Your task to perform on an android device: make emails show in primary in the gmail app Image 0: 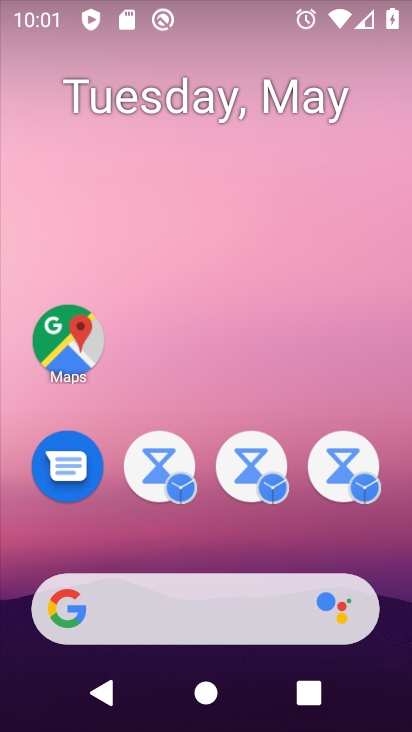
Step 0: drag from (389, 702) to (304, 105)
Your task to perform on an android device: make emails show in primary in the gmail app Image 1: 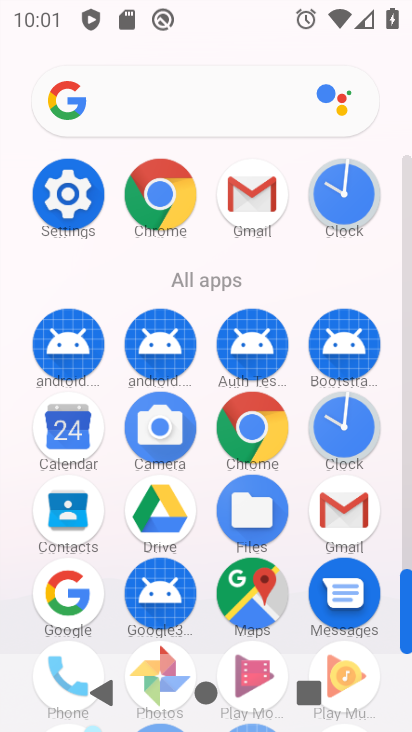
Step 1: click (235, 191)
Your task to perform on an android device: make emails show in primary in the gmail app Image 2: 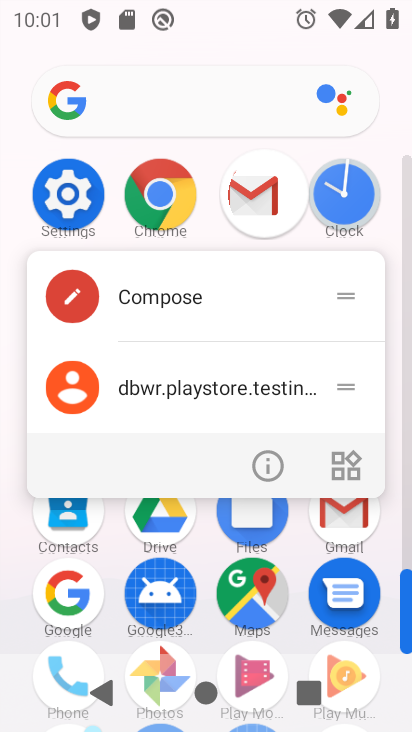
Step 2: click (248, 190)
Your task to perform on an android device: make emails show in primary in the gmail app Image 3: 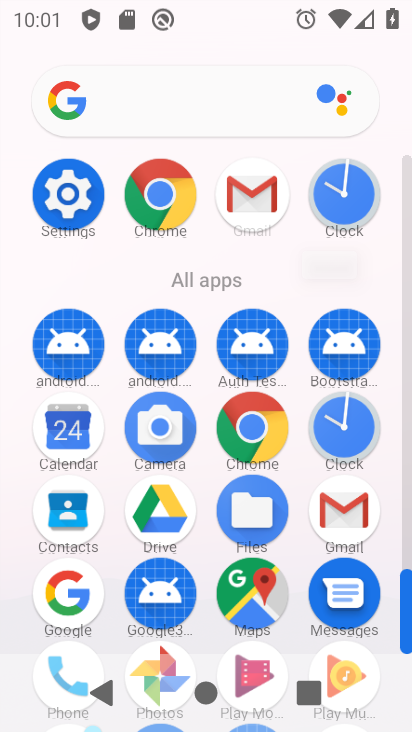
Step 3: click (252, 188)
Your task to perform on an android device: make emails show in primary in the gmail app Image 4: 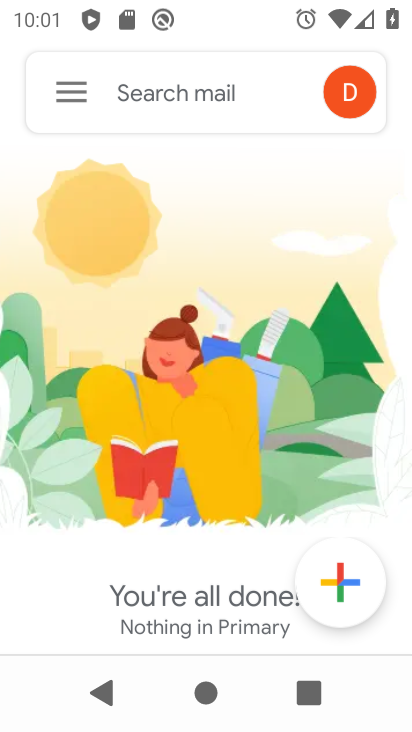
Step 4: click (252, 188)
Your task to perform on an android device: make emails show in primary in the gmail app Image 5: 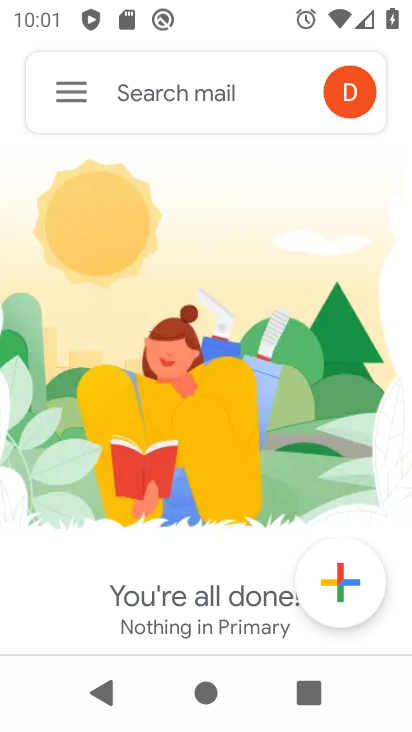
Step 5: click (252, 188)
Your task to perform on an android device: make emails show in primary in the gmail app Image 6: 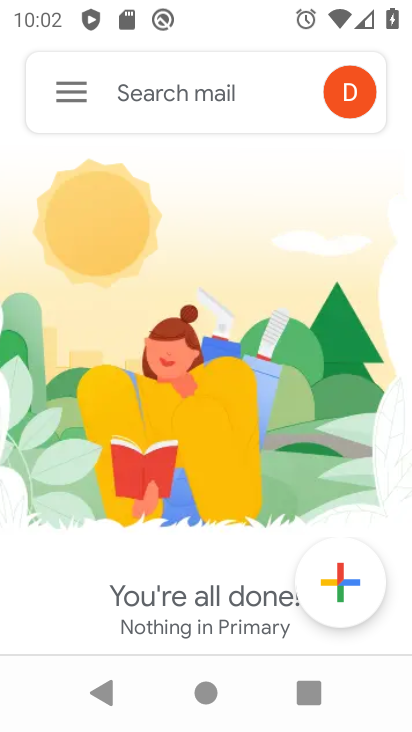
Step 6: click (61, 98)
Your task to perform on an android device: make emails show in primary in the gmail app Image 7: 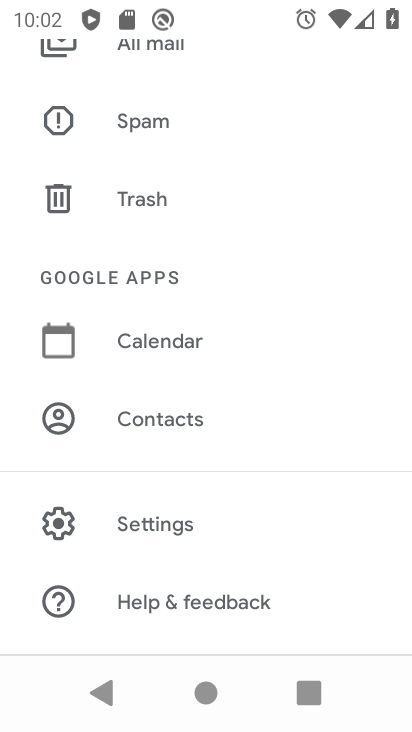
Step 7: click (162, 519)
Your task to perform on an android device: make emails show in primary in the gmail app Image 8: 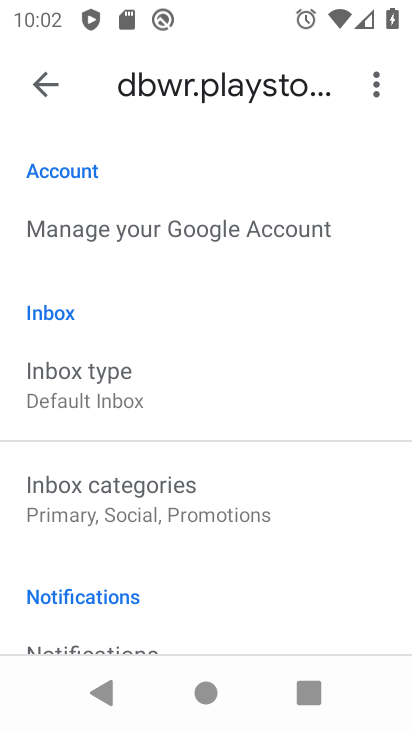
Step 8: click (108, 508)
Your task to perform on an android device: make emails show in primary in the gmail app Image 9: 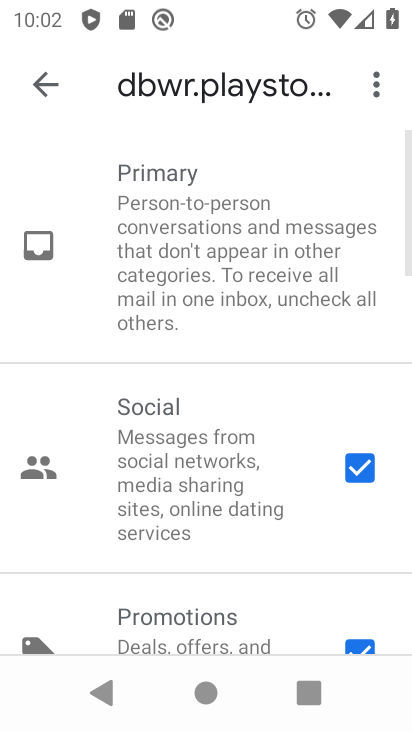
Step 9: click (128, 247)
Your task to perform on an android device: make emails show in primary in the gmail app Image 10: 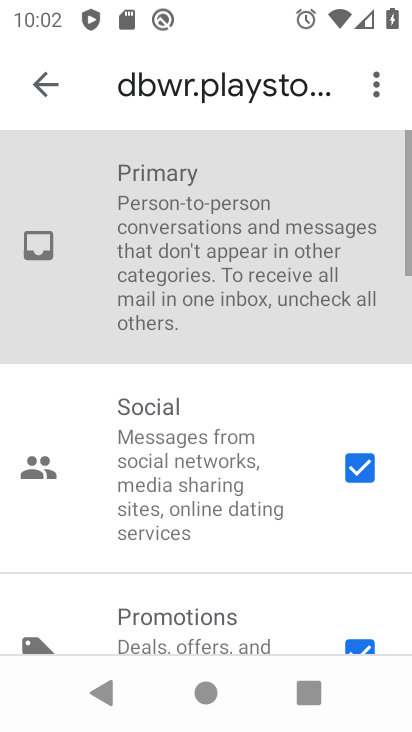
Step 10: click (130, 244)
Your task to perform on an android device: make emails show in primary in the gmail app Image 11: 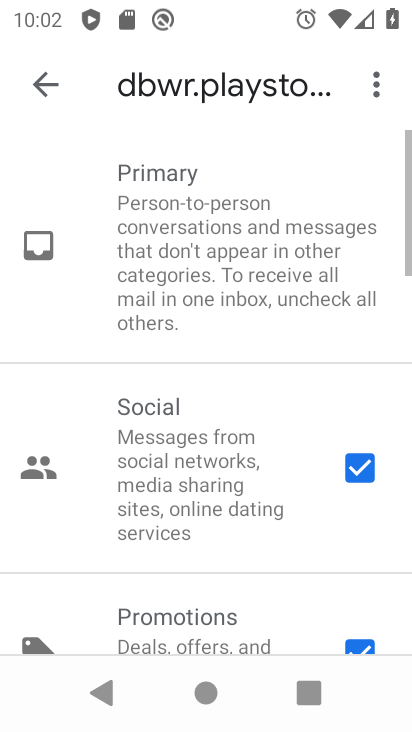
Step 11: click (130, 244)
Your task to perform on an android device: make emails show in primary in the gmail app Image 12: 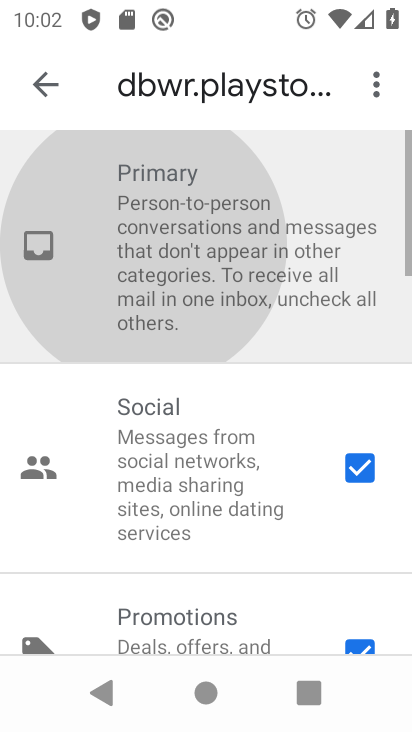
Step 12: click (130, 244)
Your task to perform on an android device: make emails show in primary in the gmail app Image 13: 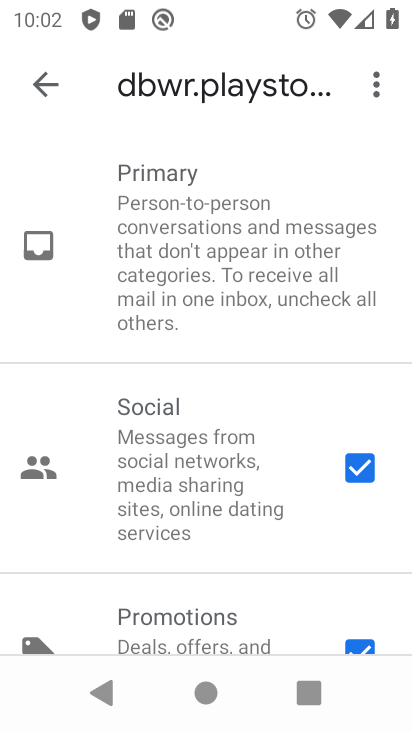
Step 13: drag from (179, 193) to (177, 255)
Your task to perform on an android device: make emails show in primary in the gmail app Image 14: 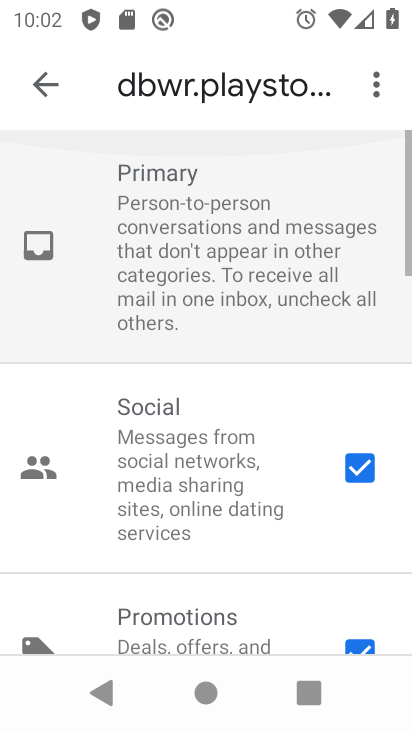
Step 14: click (177, 255)
Your task to perform on an android device: make emails show in primary in the gmail app Image 15: 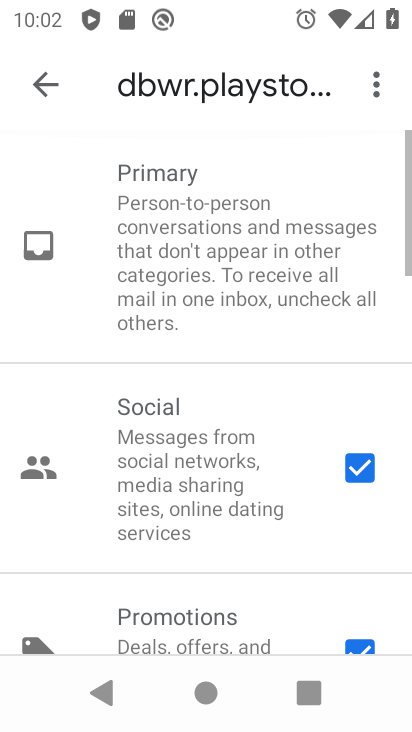
Step 15: click (177, 255)
Your task to perform on an android device: make emails show in primary in the gmail app Image 16: 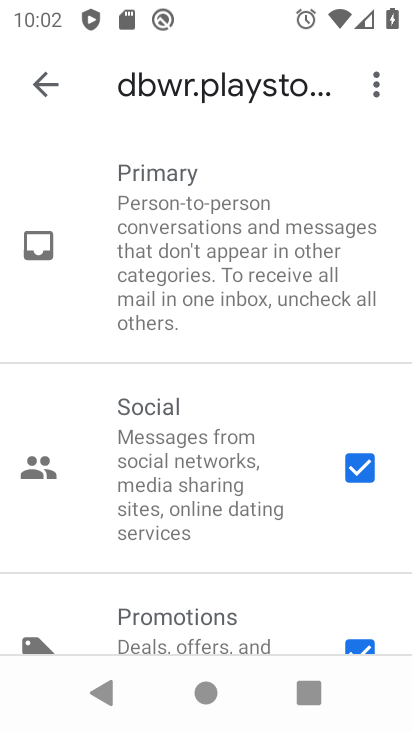
Step 16: task complete